Your task to perform on an android device: toggle notification dots Image 0: 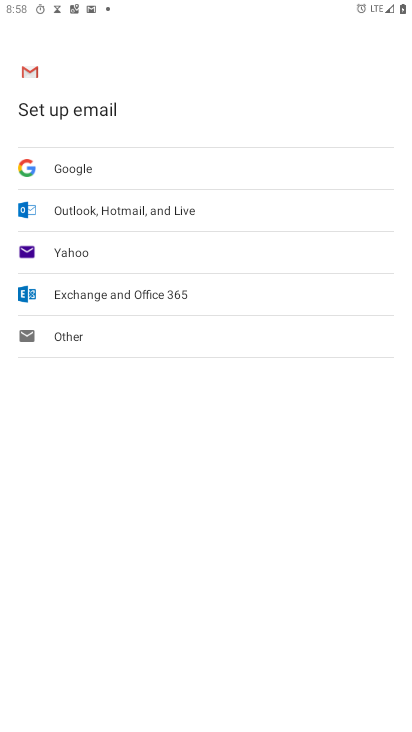
Step 0: press home button
Your task to perform on an android device: toggle notification dots Image 1: 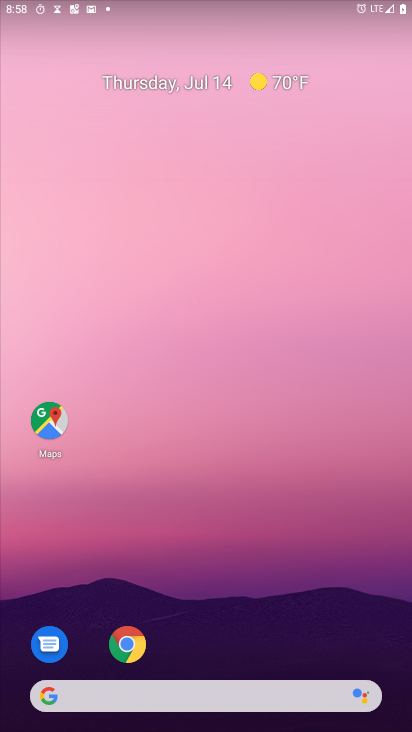
Step 1: drag from (164, 689) to (210, 5)
Your task to perform on an android device: toggle notification dots Image 2: 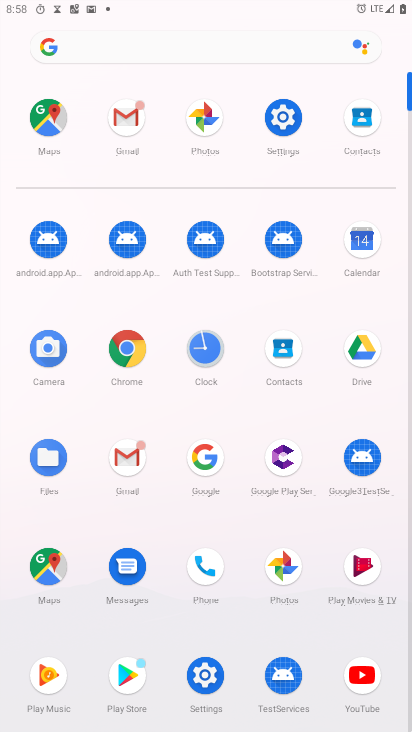
Step 2: click (286, 118)
Your task to perform on an android device: toggle notification dots Image 3: 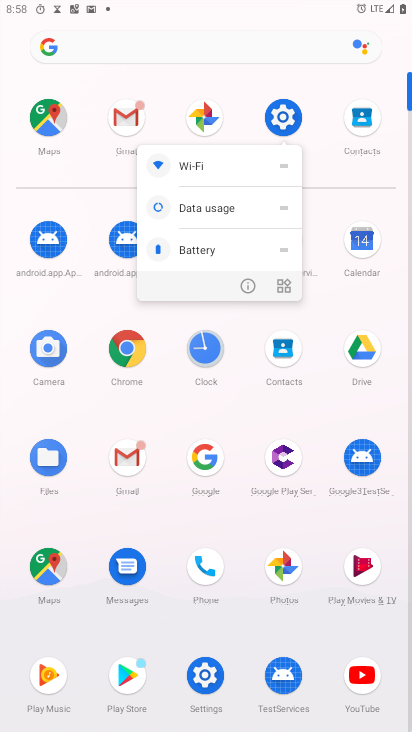
Step 3: click (278, 125)
Your task to perform on an android device: toggle notification dots Image 4: 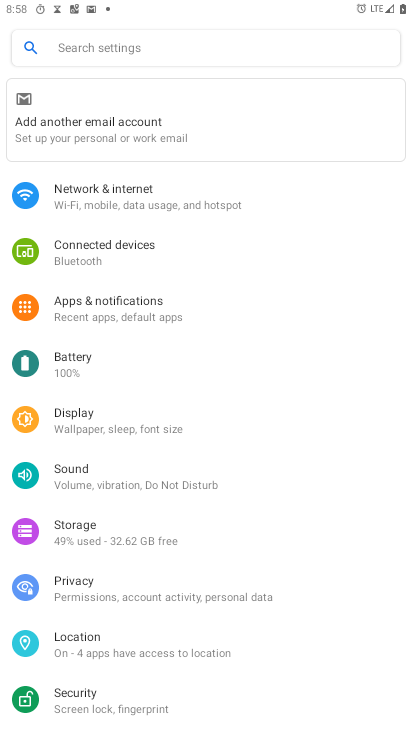
Step 4: click (157, 309)
Your task to perform on an android device: toggle notification dots Image 5: 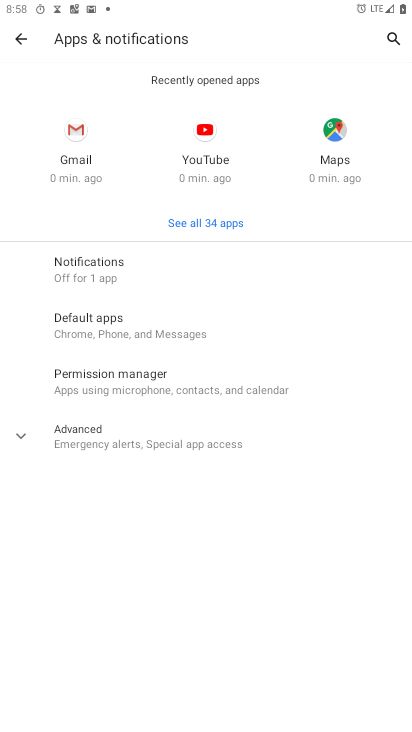
Step 5: click (88, 271)
Your task to perform on an android device: toggle notification dots Image 6: 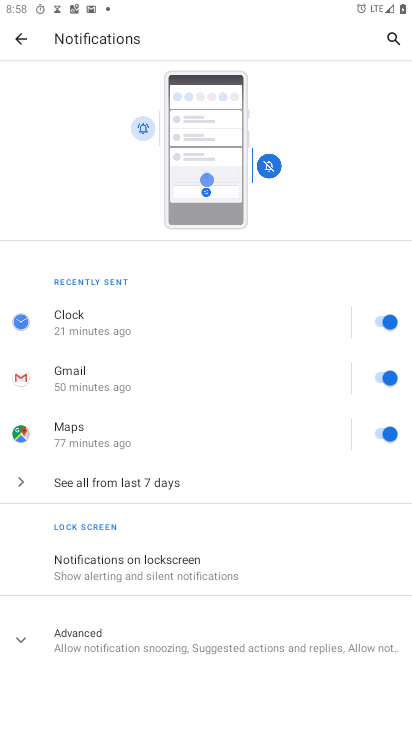
Step 6: click (113, 640)
Your task to perform on an android device: toggle notification dots Image 7: 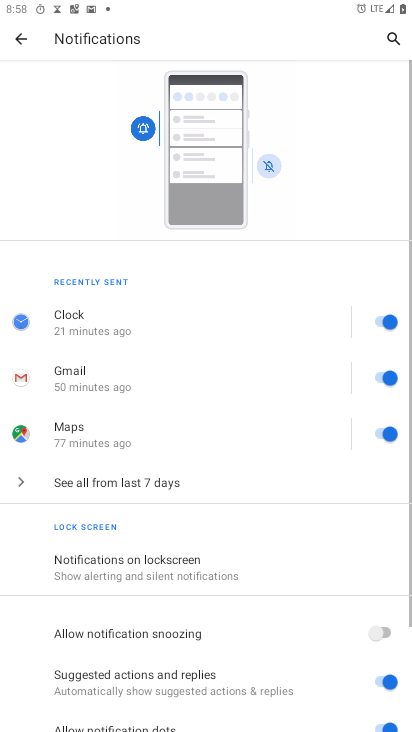
Step 7: drag from (180, 615) to (290, 33)
Your task to perform on an android device: toggle notification dots Image 8: 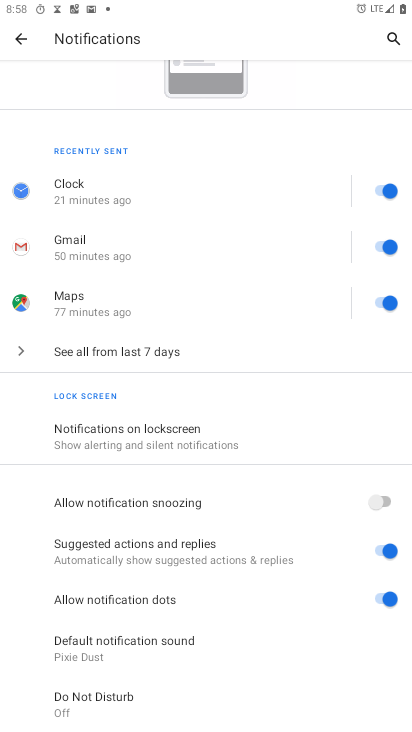
Step 8: click (383, 601)
Your task to perform on an android device: toggle notification dots Image 9: 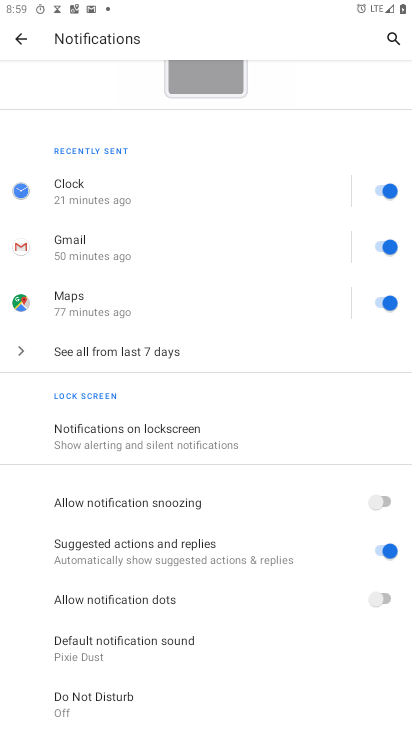
Step 9: task complete